Your task to perform on an android device: move a message to another label in the gmail app Image 0: 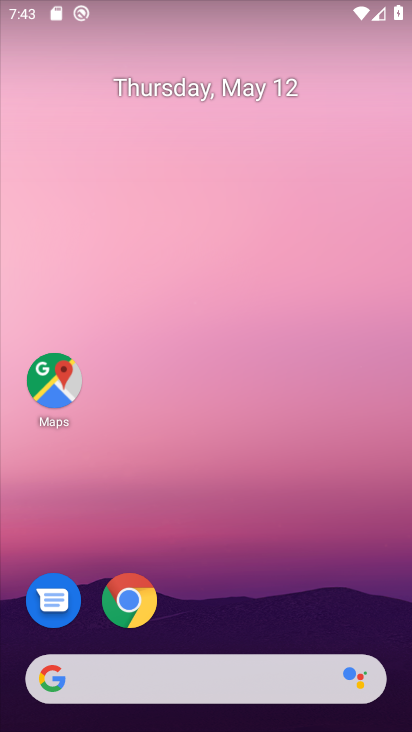
Step 0: drag from (217, 635) to (213, 162)
Your task to perform on an android device: move a message to another label in the gmail app Image 1: 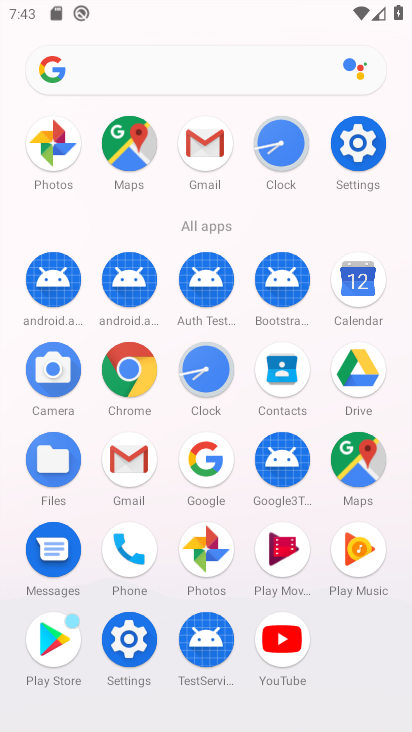
Step 1: click (127, 450)
Your task to perform on an android device: move a message to another label in the gmail app Image 2: 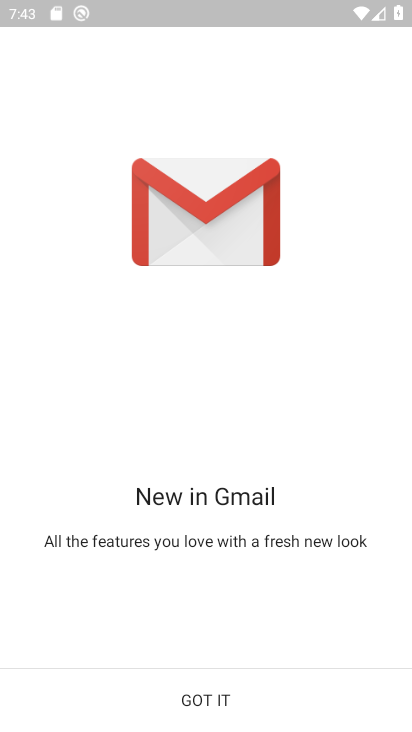
Step 2: click (300, 697)
Your task to perform on an android device: move a message to another label in the gmail app Image 3: 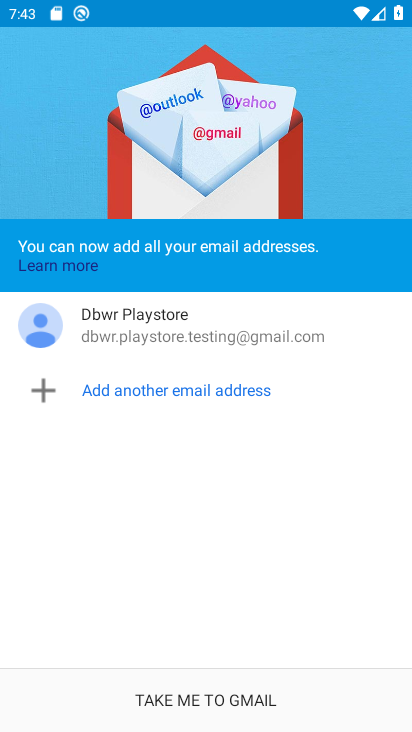
Step 3: click (300, 697)
Your task to perform on an android device: move a message to another label in the gmail app Image 4: 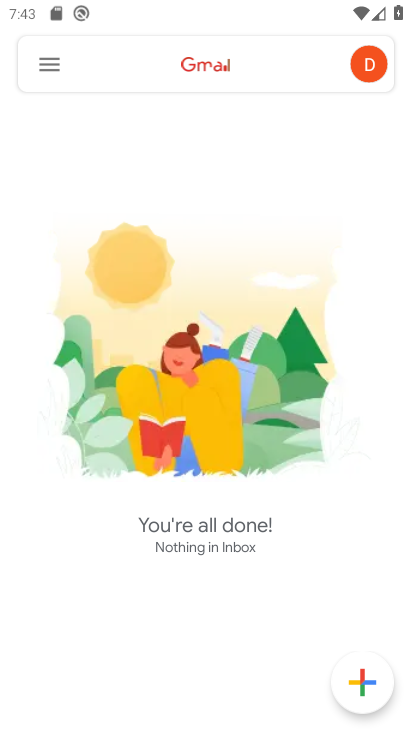
Step 4: click (44, 63)
Your task to perform on an android device: move a message to another label in the gmail app Image 5: 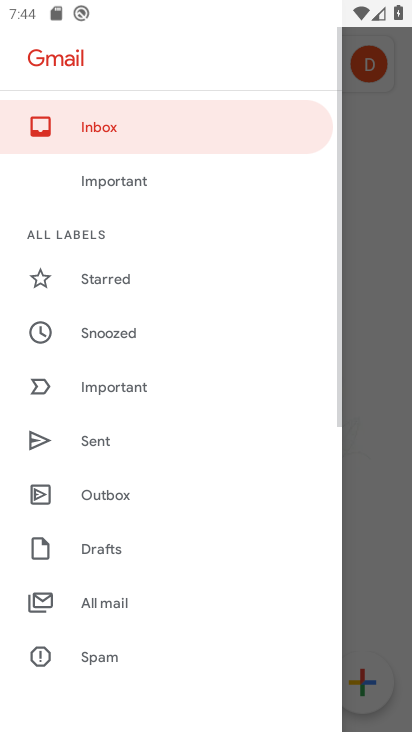
Step 5: drag from (148, 616) to (171, 205)
Your task to perform on an android device: move a message to another label in the gmail app Image 6: 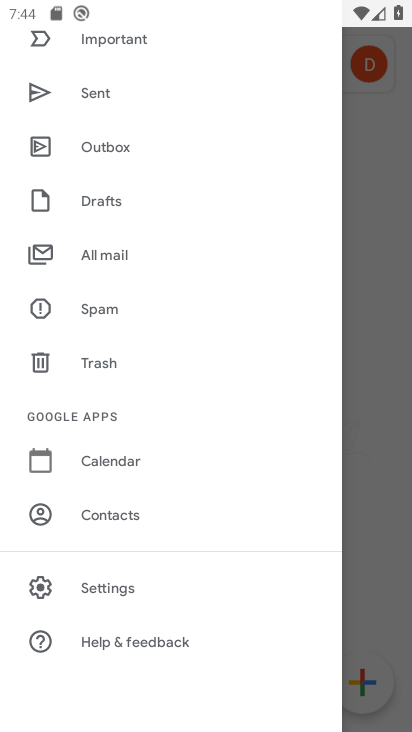
Step 6: click (176, 255)
Your task to perform on an android device: move a message to another label in the gmail app Image 7: 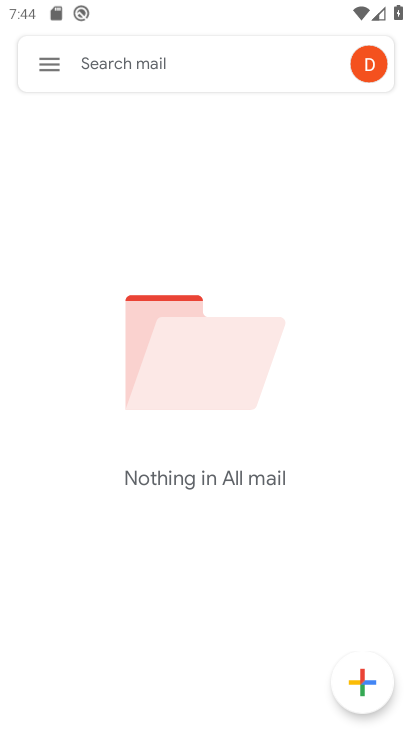
Step 7: task complete